Your task to perform on an android device: turn on sleep mode Image 0: 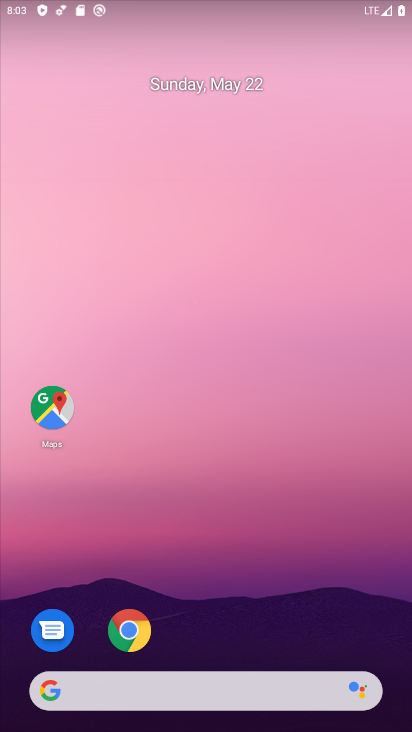
Step 0: drag from (380, 635) to (300, 16)
Your task to perform on an android device: turn on sleep mode Image 1: 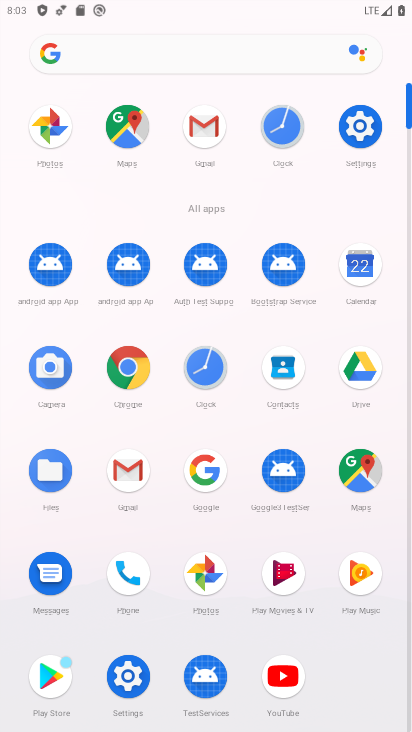
Step 1: click (130, 675)
Your task to perform on an android device: turn on sleep mode Image 2: 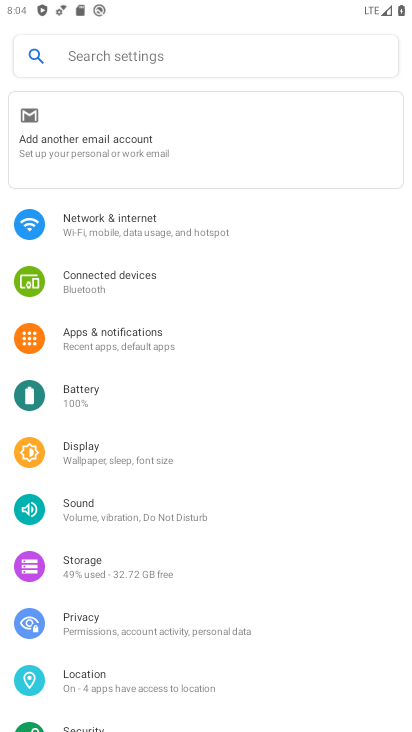
Step 2: click (80, 449)
Your task to perform on an android device: turn on sleep mode Image 3: 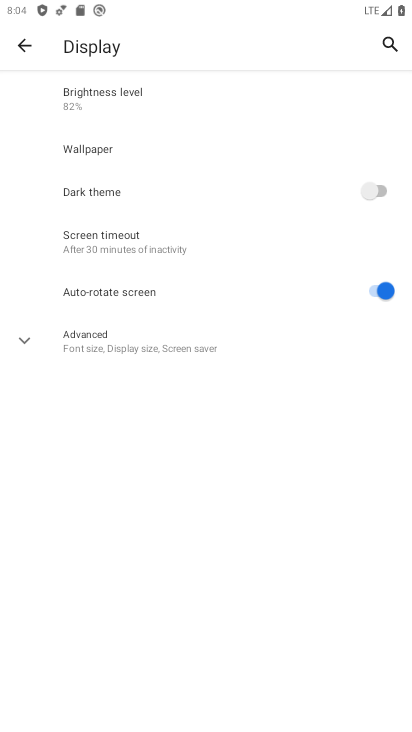
Step 3: click (24, 340)
Your task to perform on an android device: turn on sleep mode Image 4: 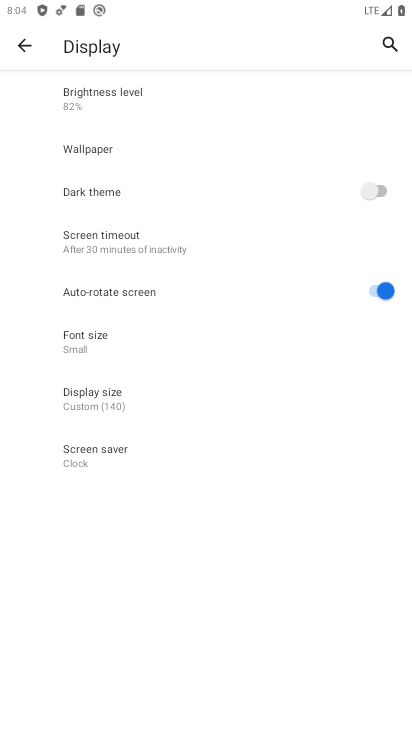
Step 4: task complete